Your task to perform on an android device: toggle javascript in the chrome app Image 0: 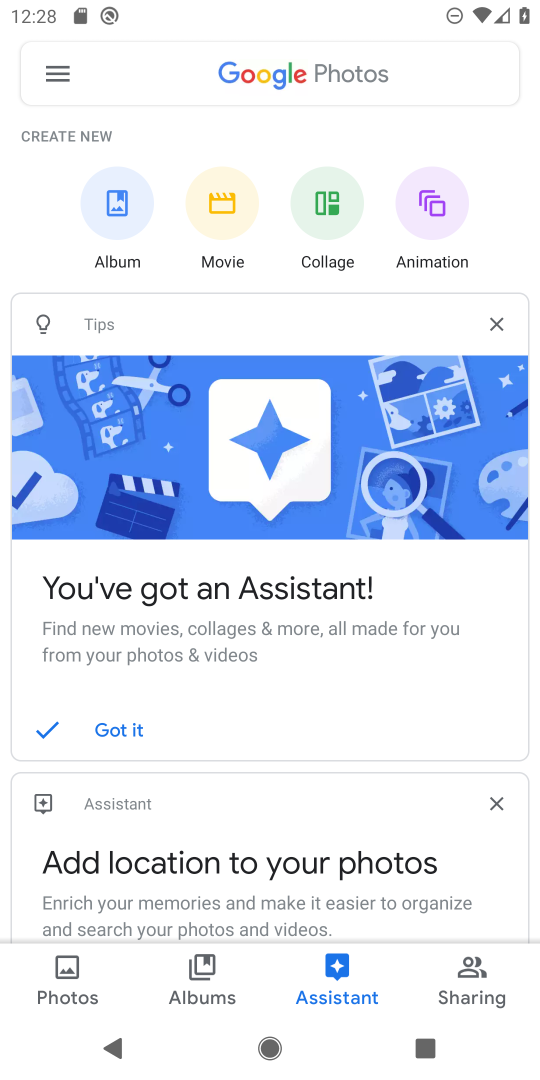
Step 0: press back button
Your task to perform on an android device: toggle javascript in the chrome app Image 1: 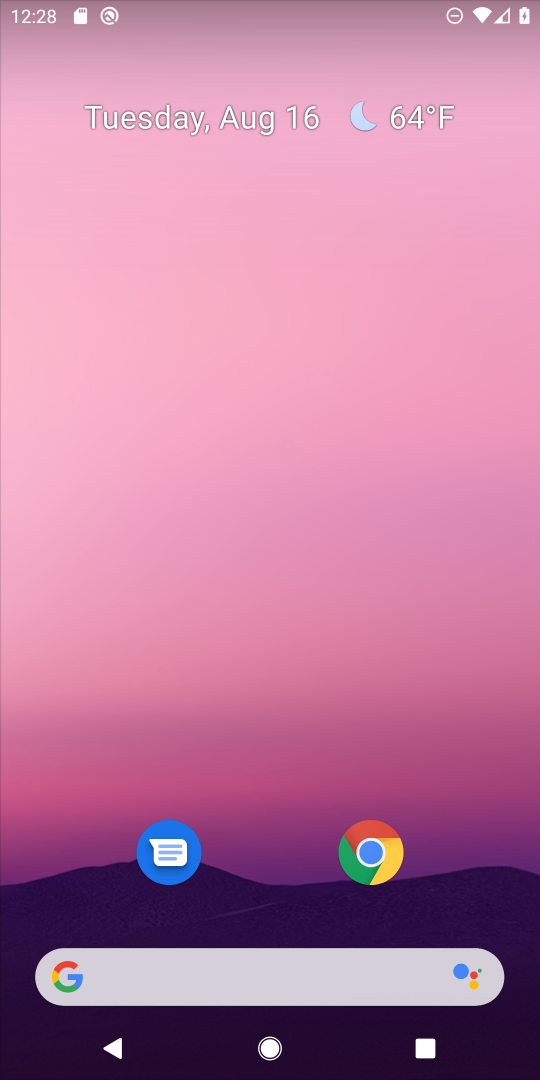
Step 1: click (373, 852)
Your task to perform on an android device: toggle javascript in the chrome app Image 2: 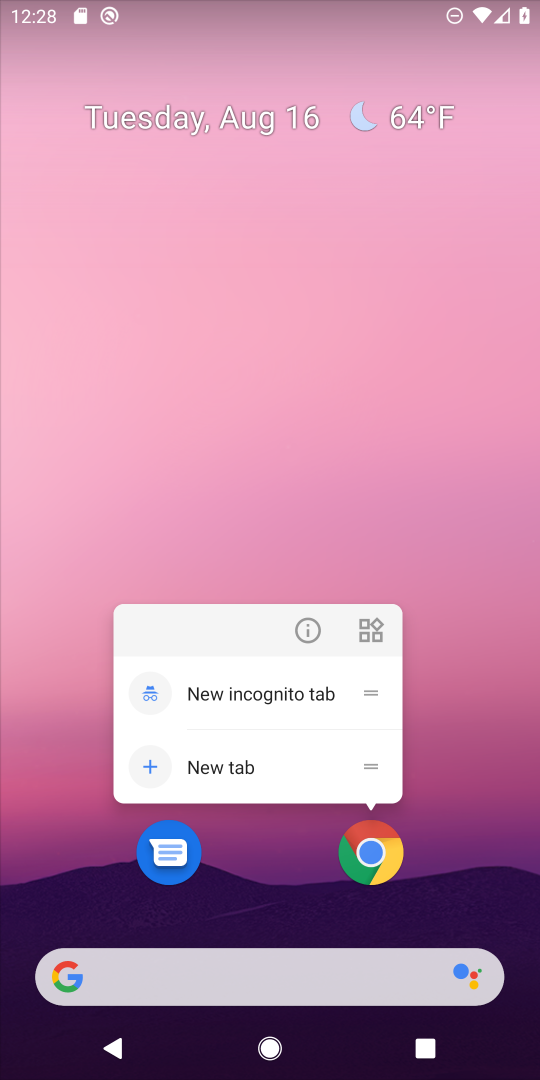
Step 2: click (373, 852)
Your task to perform on an android device: toggle javascript in the chrome app Image 3: 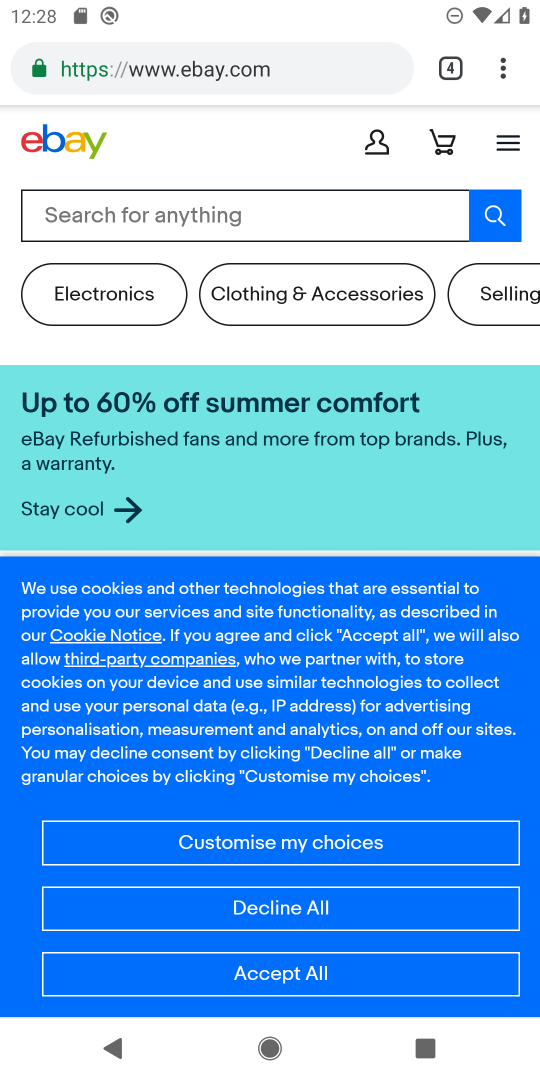
Step 3: drag from (502, 65) to (279, 903)
Your task to perform on an android device: toggle javascript in the chrome app Image 4: 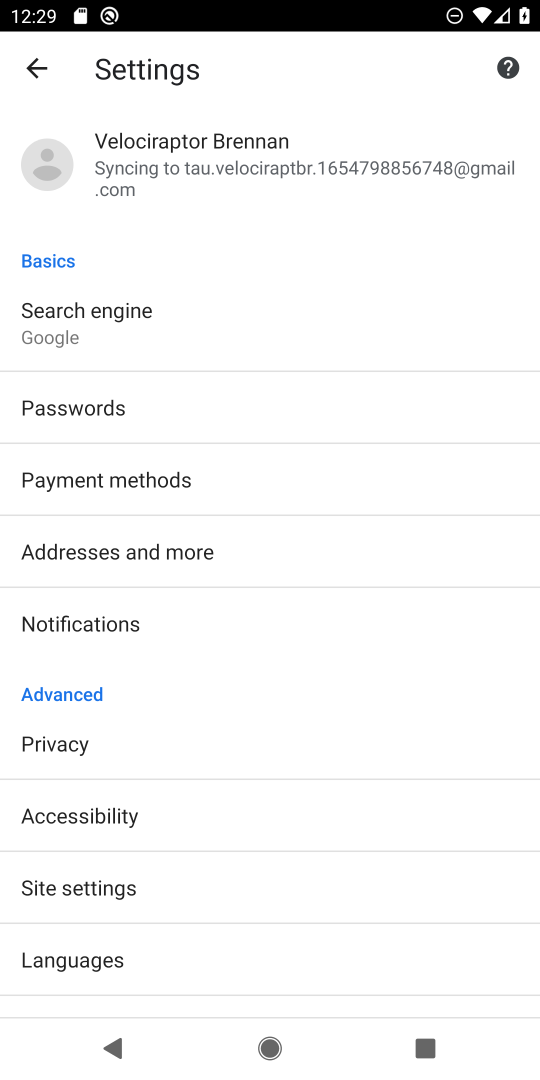
Step 4: click (110, 904)
Your task to perform on an android device: toggle javascript in the chrome app Image 5: 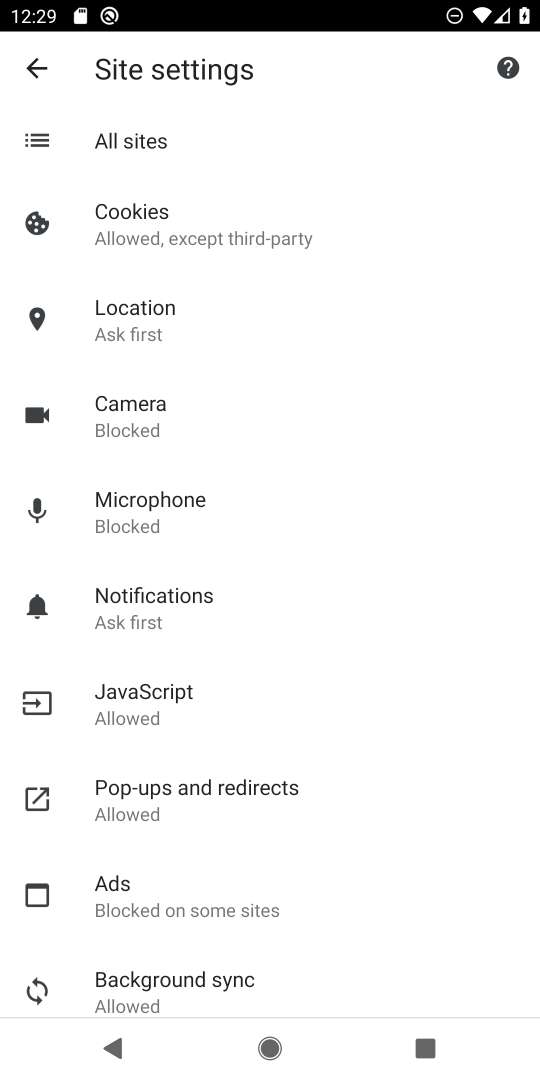
Step 5: click (146, 698)
Your task to perform on an android device: toggle javascript in the chrome app Image 6: 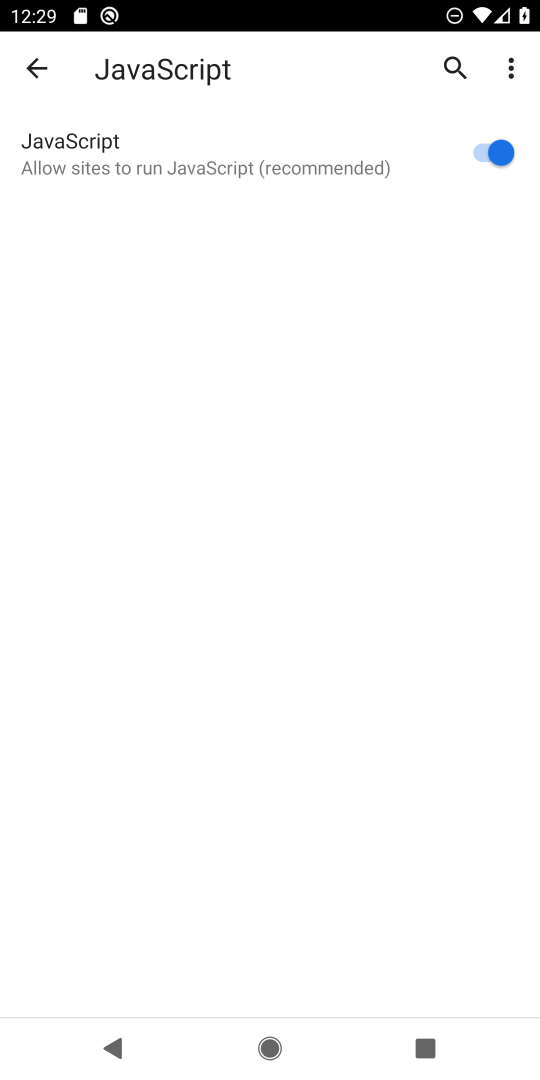
Step 6: click (505, 147)
Your task to perform on an android device: toggle javascript in the chrome app Image 7: 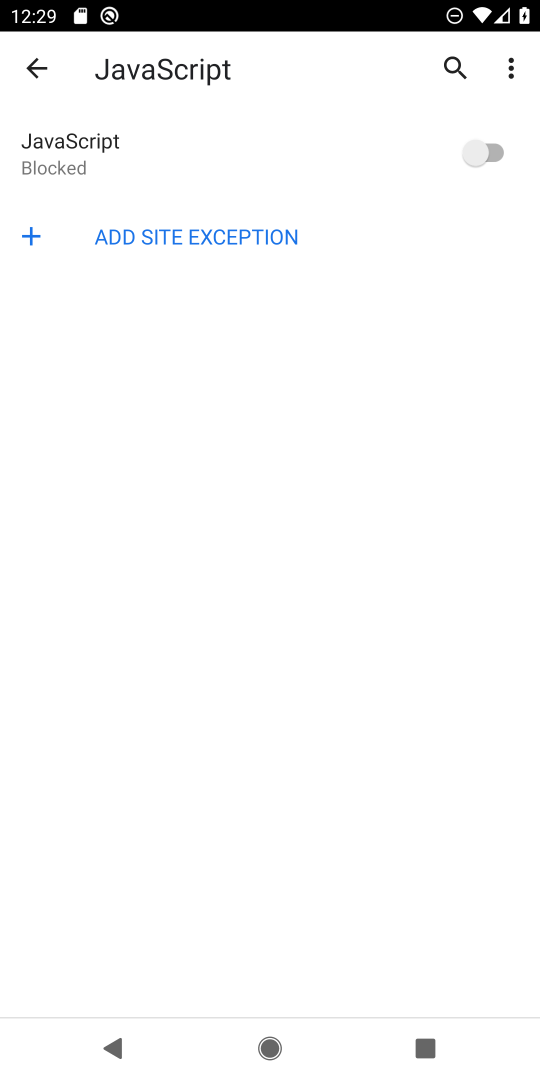
Step 7: task complete